Your task to perform on an android device: Turn off the flashlight Image 0: 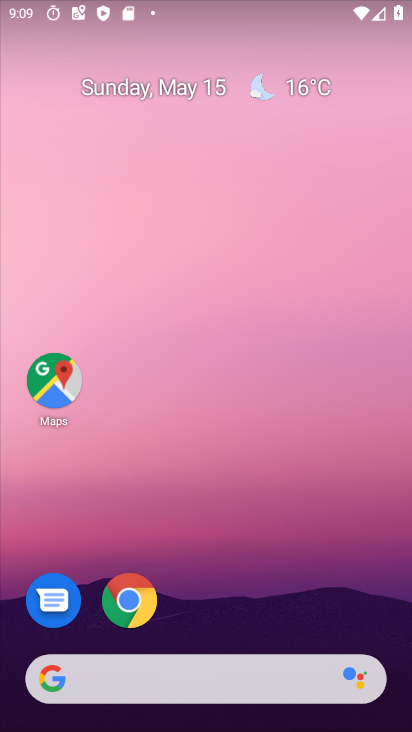
Step 0: drag from (239, 587) to (202, 70)
Your task to perform on an android device: Turn off the flashlight Image 1: 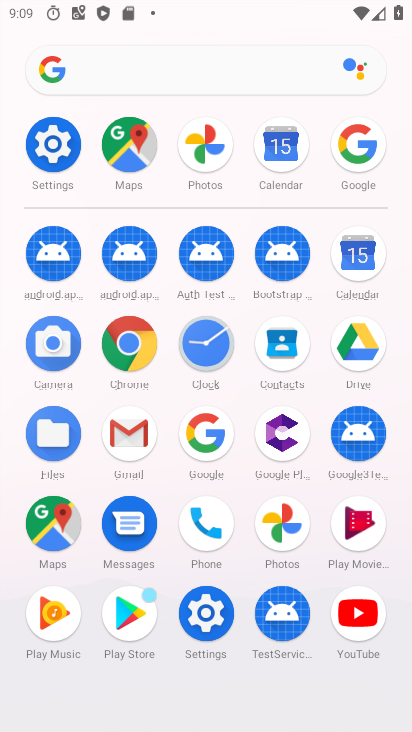
Step 1: click (216, 608)
Your task to perform on an android device: Turn off the flashlight Image 2: 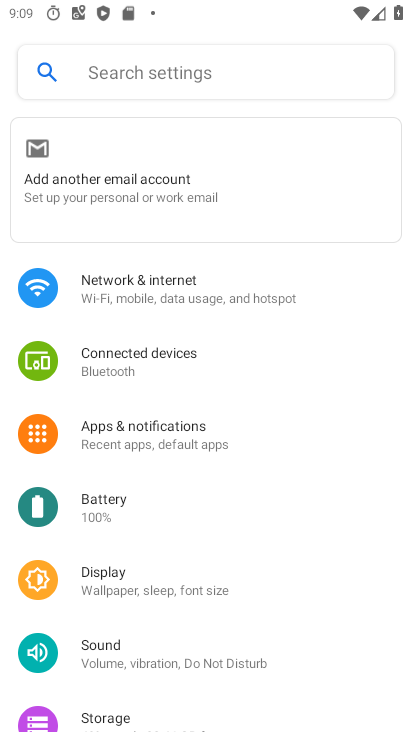
Step 2: click (174, 53)
Your task to perform on an android device: Turn off the flashlight Image 3: 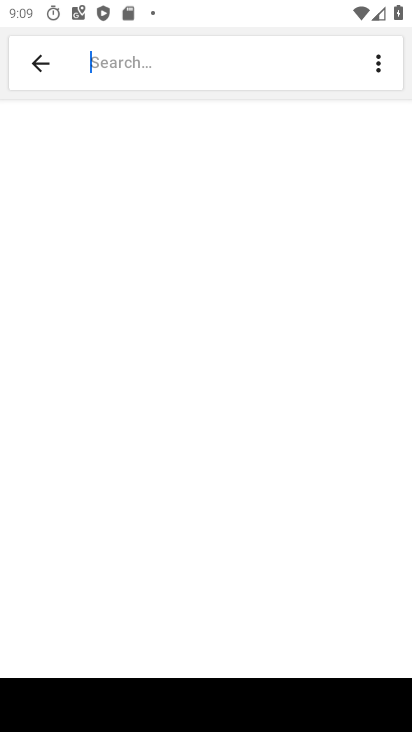
Step 3: type "flash"
Your task to perform on an android device: Turn off the flashlight Image 4: 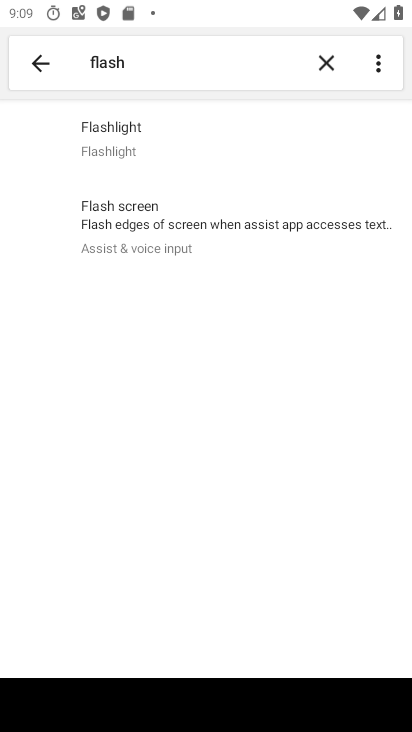
Step 4: task complete